Your task to perform on an android device: Open Maps and search for coffee Image 0: 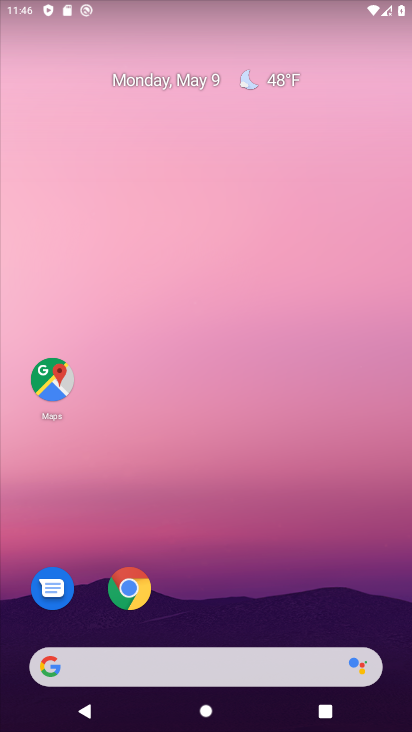
Step 0: click (66, 387)
Your task to perform on an android device: Open Maps and search for coffee Image 1: 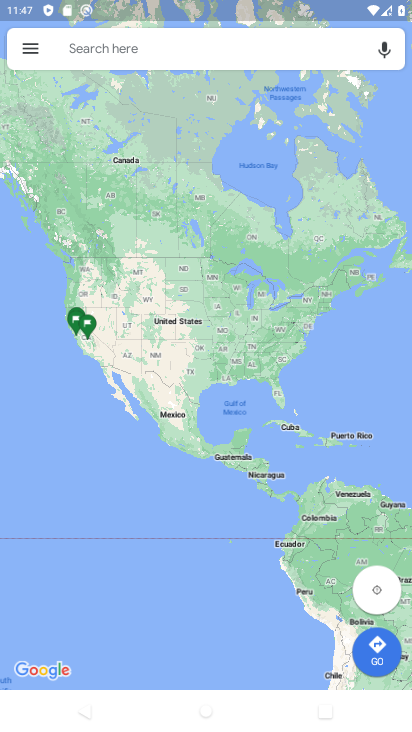
Step 1: click (240, 52)
Your task to perform on an android device: Open Maps and search for coffee Image 2: 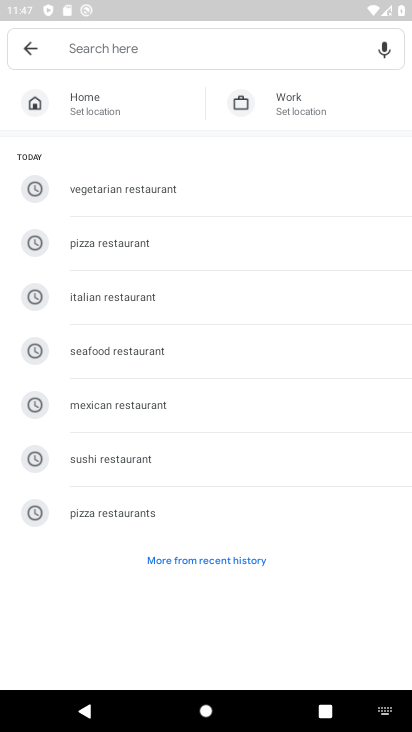
Step 2: click (235, 34)
Your task to perform on an android device: Open Maps and search for coffee Image 3: 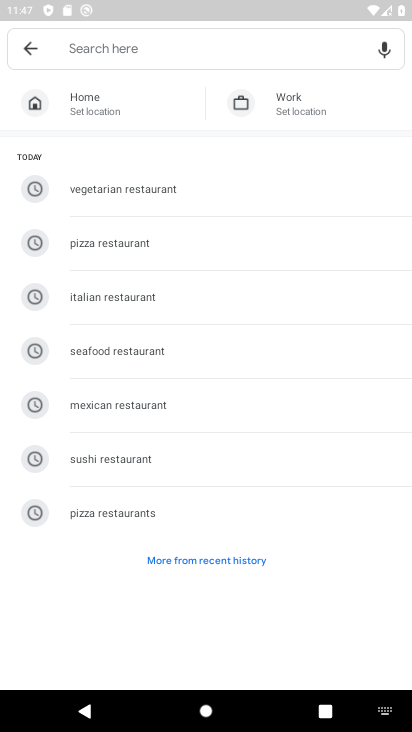
Step 3: type "coffee"
Your task to perform on an android device: Open Maps and search for coffee Image 4: 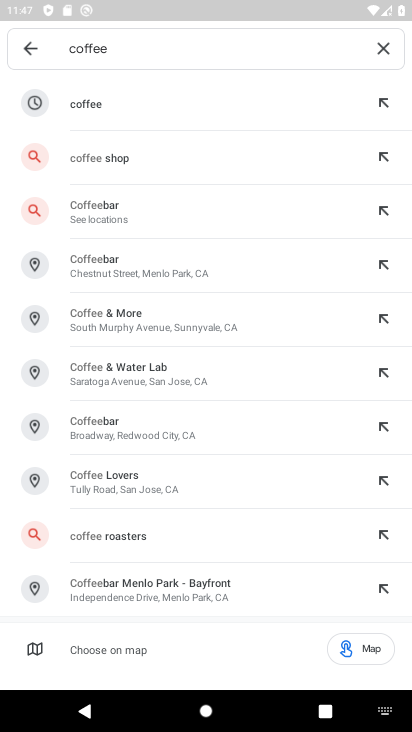
Step 4: click (173, 101)
Your task to perform on an android device: Open Maps and search for coffee Image 5: 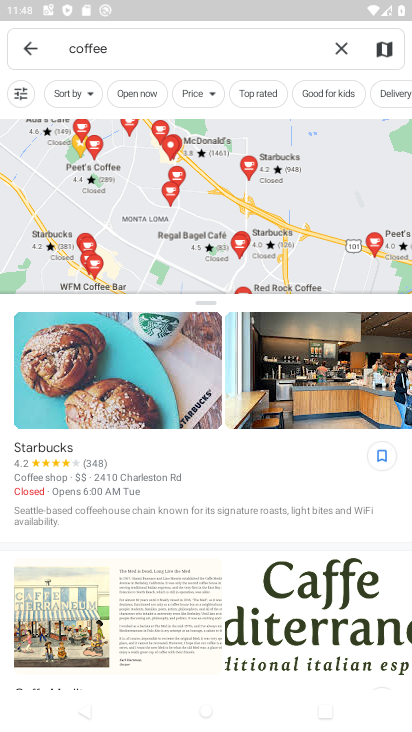
Step 5: task complete